Your task to perform on an android device: What's the weather today? Image 0: 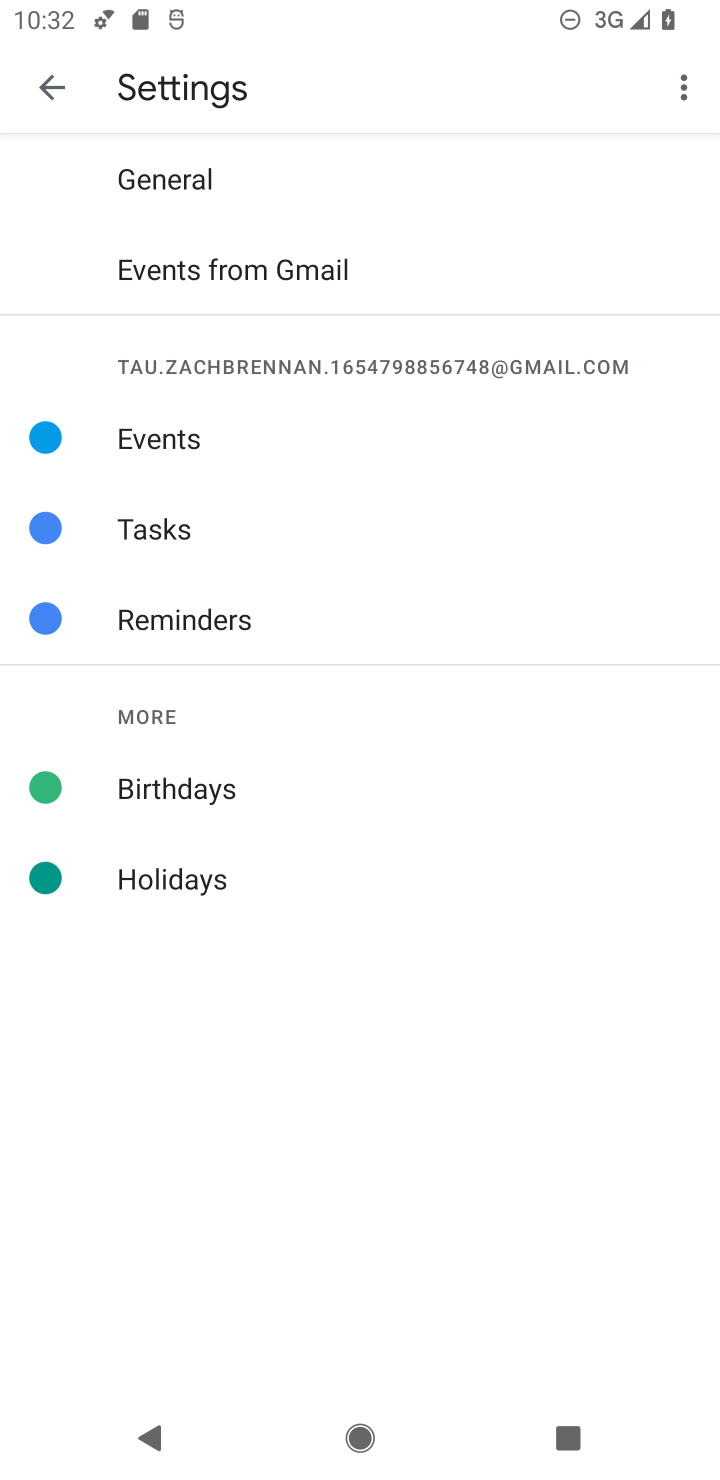
Step 0: press home button
Your task to perform on an android device: What's the weather today? Image 1: 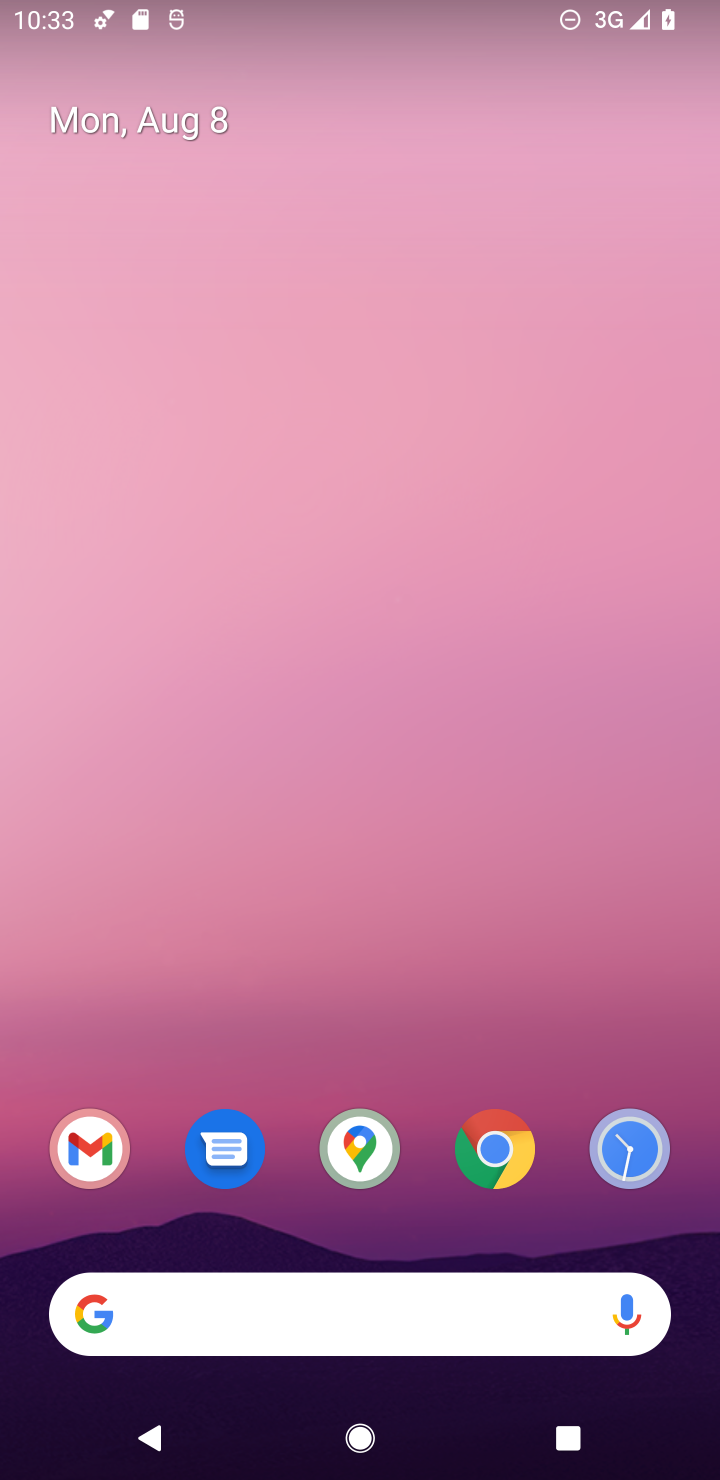
Step 1: drag from (263, 858) to (244, 735)
Your task to perform on an android device: What's the weather today? Image 2: 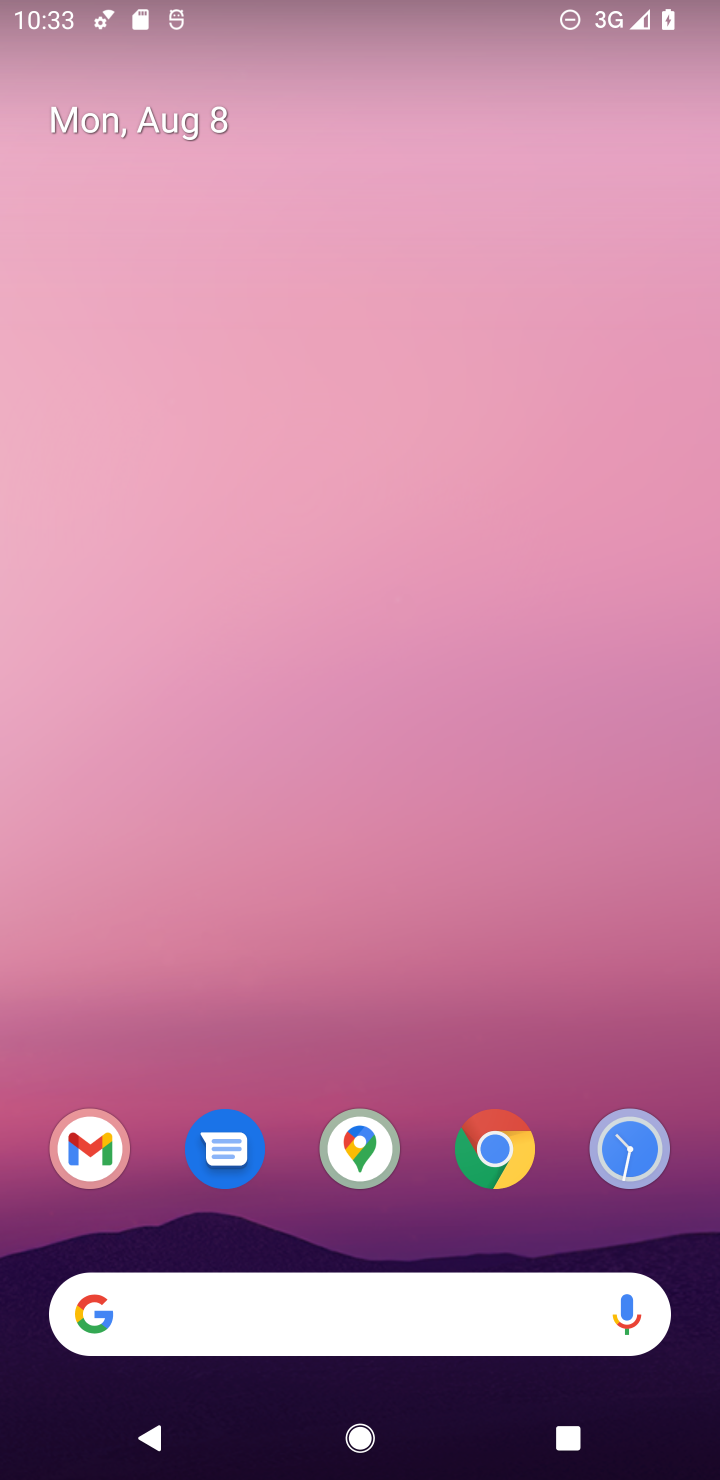
Step 2: drag from (315, 1208) to (175, 492)
Your task to perform on an android device: What's the weather today? Image 3: 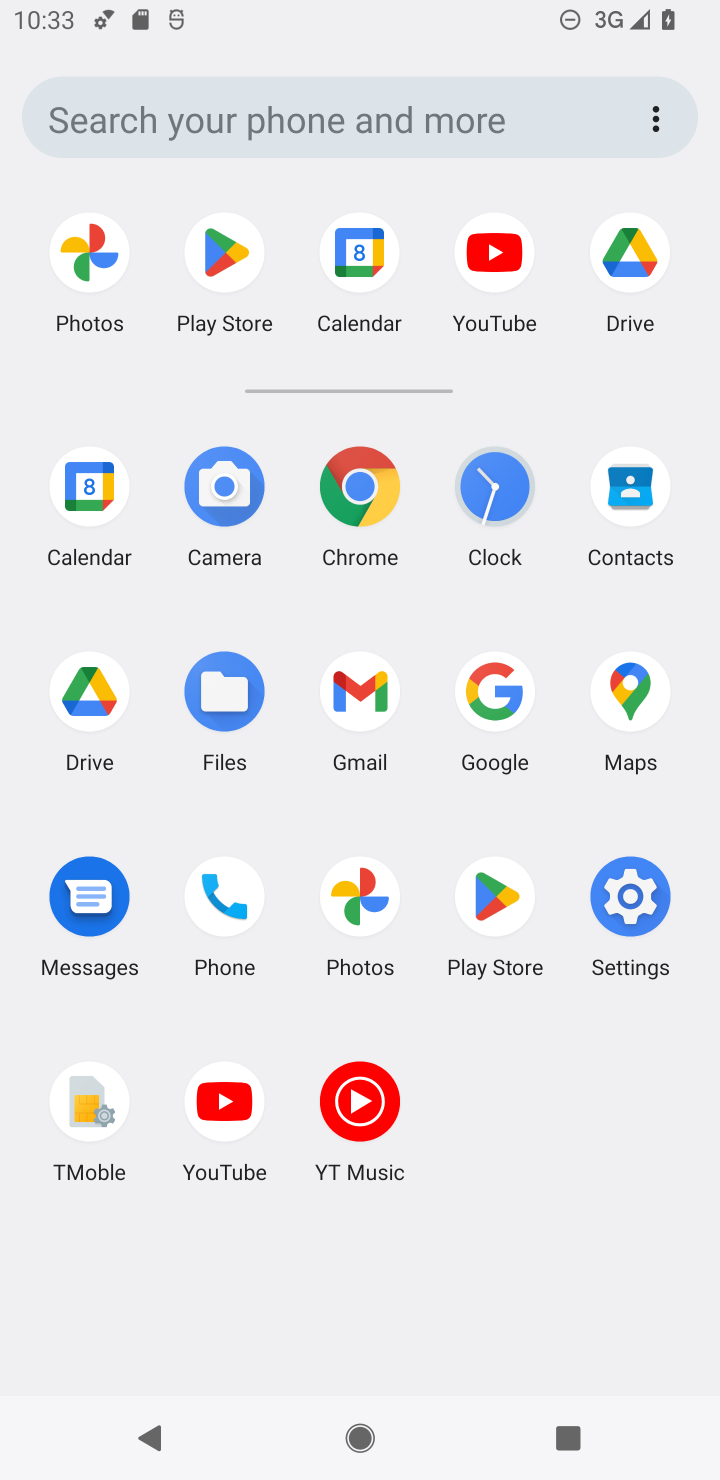
Step 3: click (473, 699)
Your task to perform on an android device: What's the weather today? Image 4: 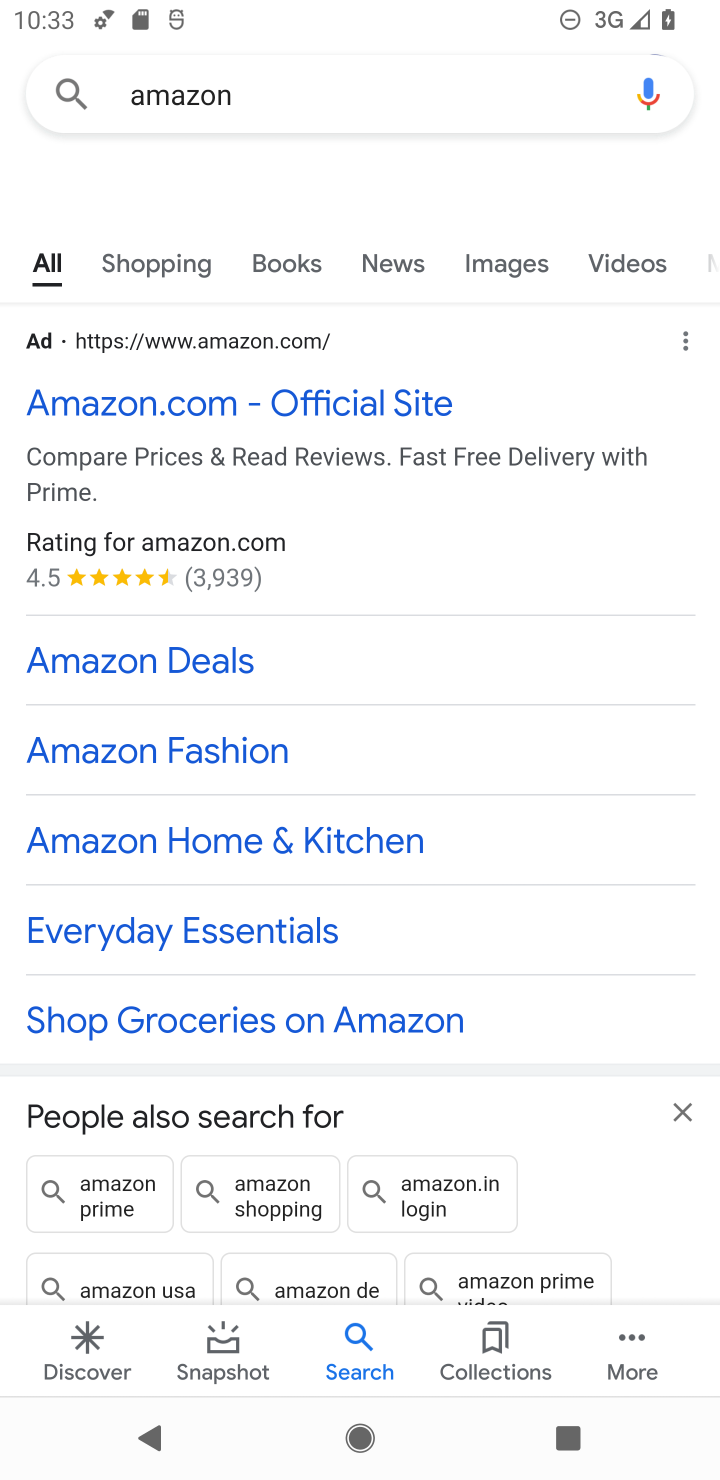
Step 4: click (271, 97)
Your task to perform on an android device: What's the weather today? Image 5: 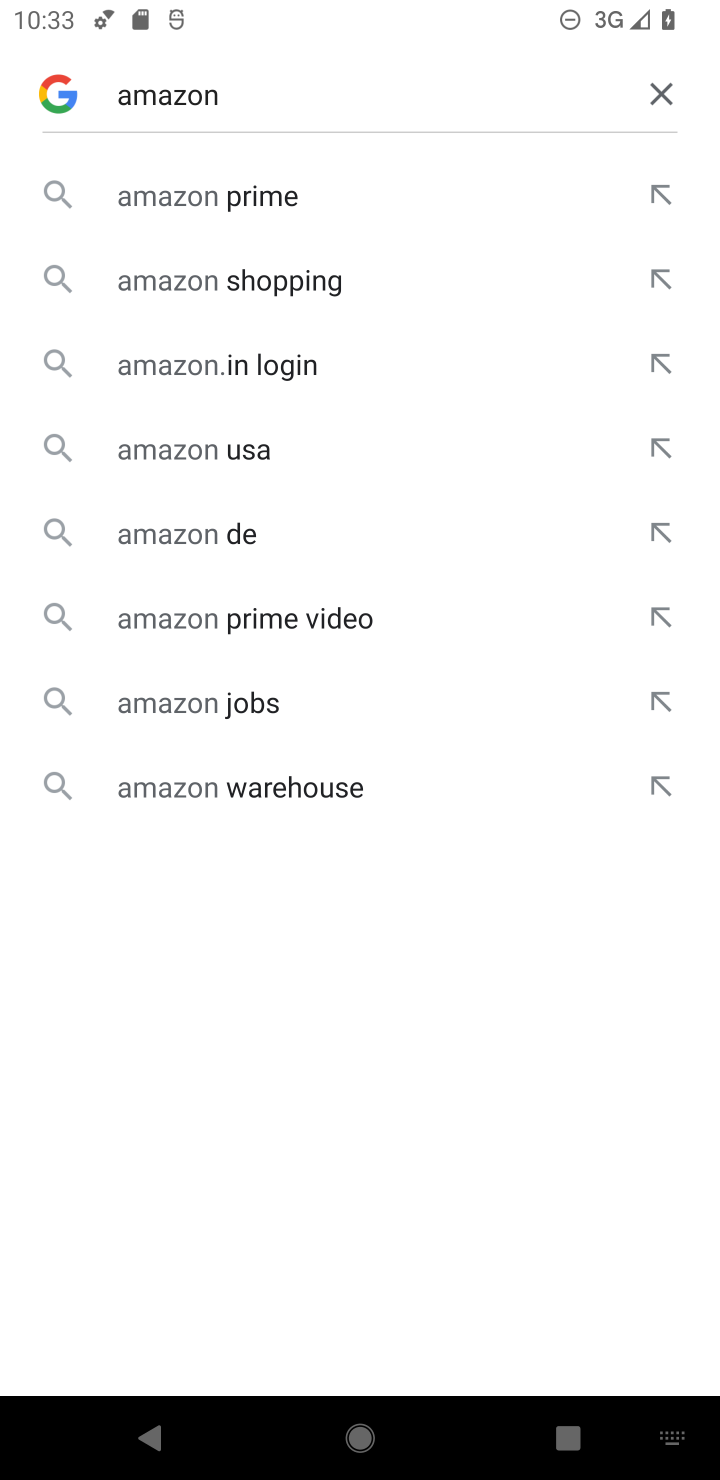
Step 5: click (654, 107)
Your task to perform on an android device: What's the weather today? Image 6: 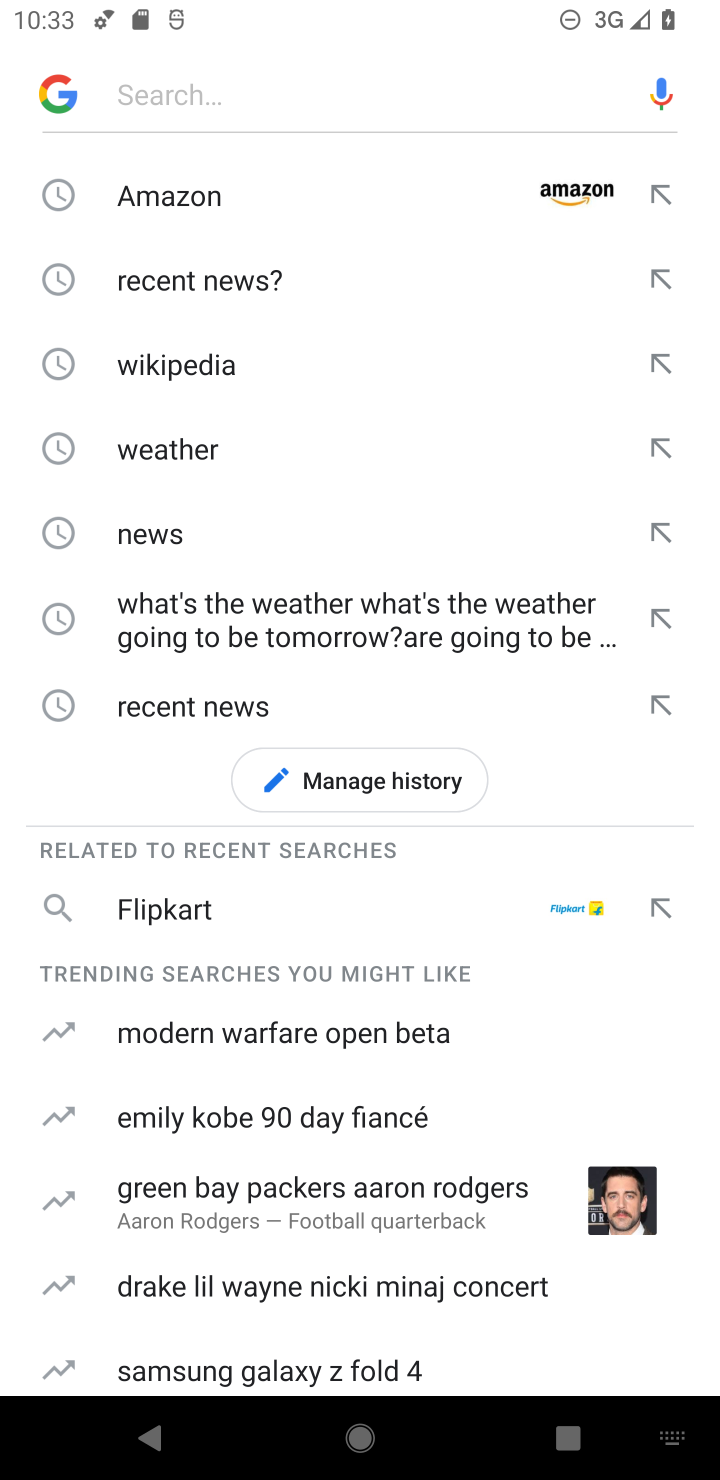
Step 6: click (184, 437)
Your task to perform on an android device: What's the weather today? Image 7: 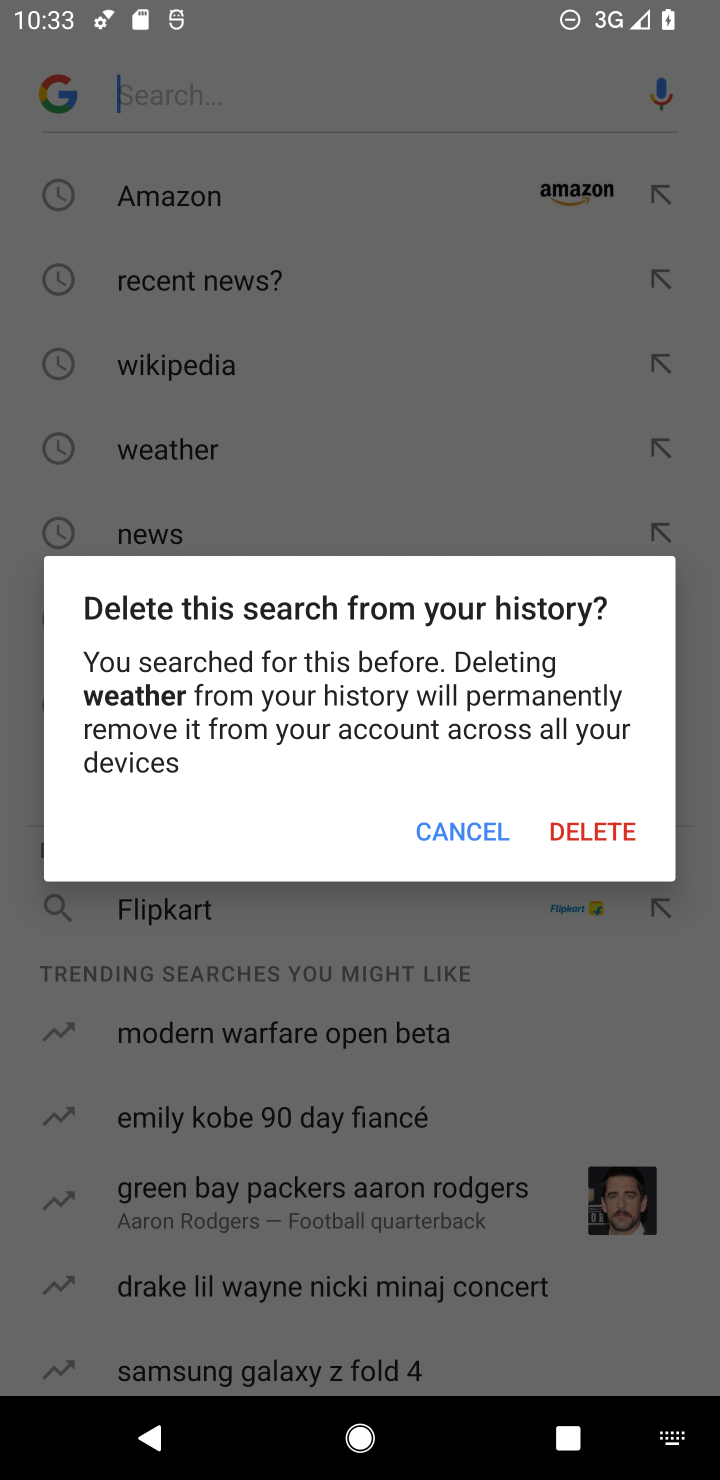
Step 7: click (442, 839)
Your task to perform on an android device: What's the weather today? Image 8: 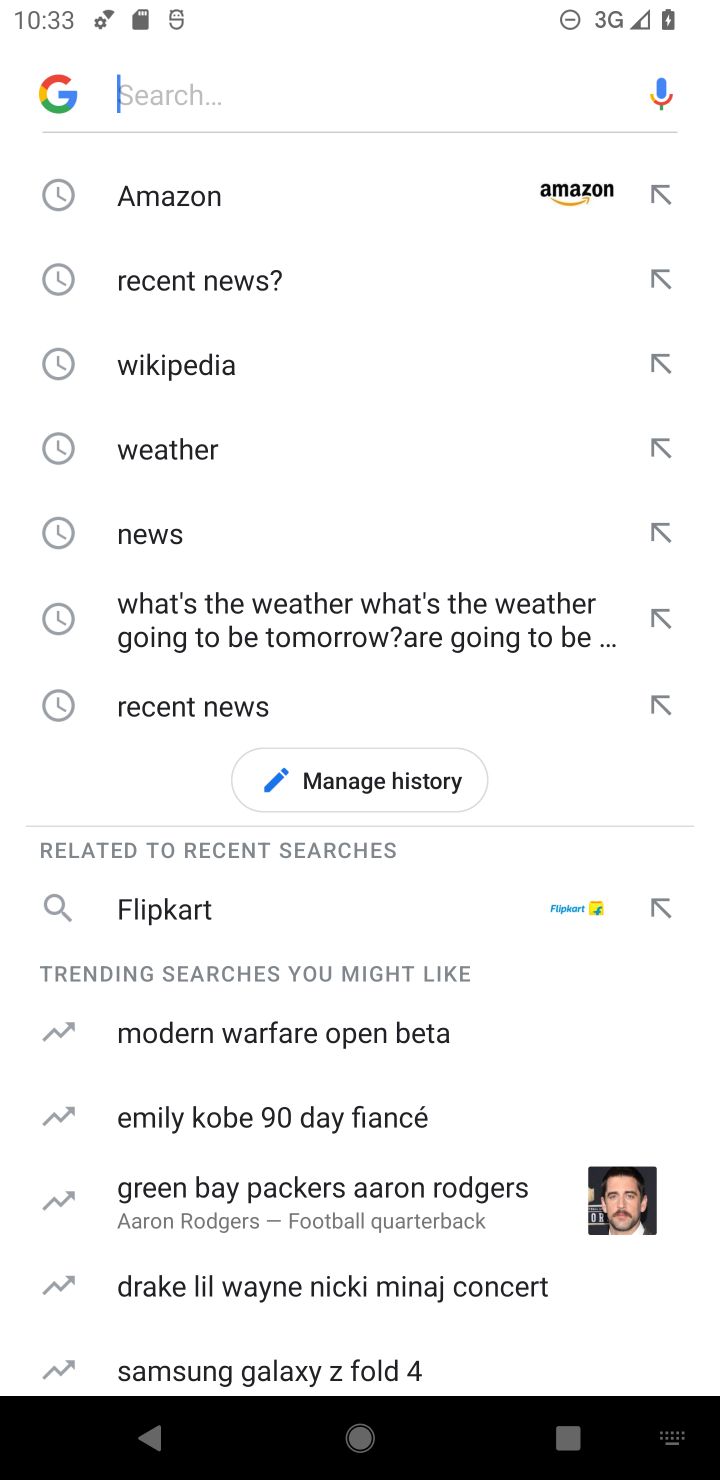
Step 8: click (144, 458)
Your task to perform on an android device: What's the weather today? Image 9: 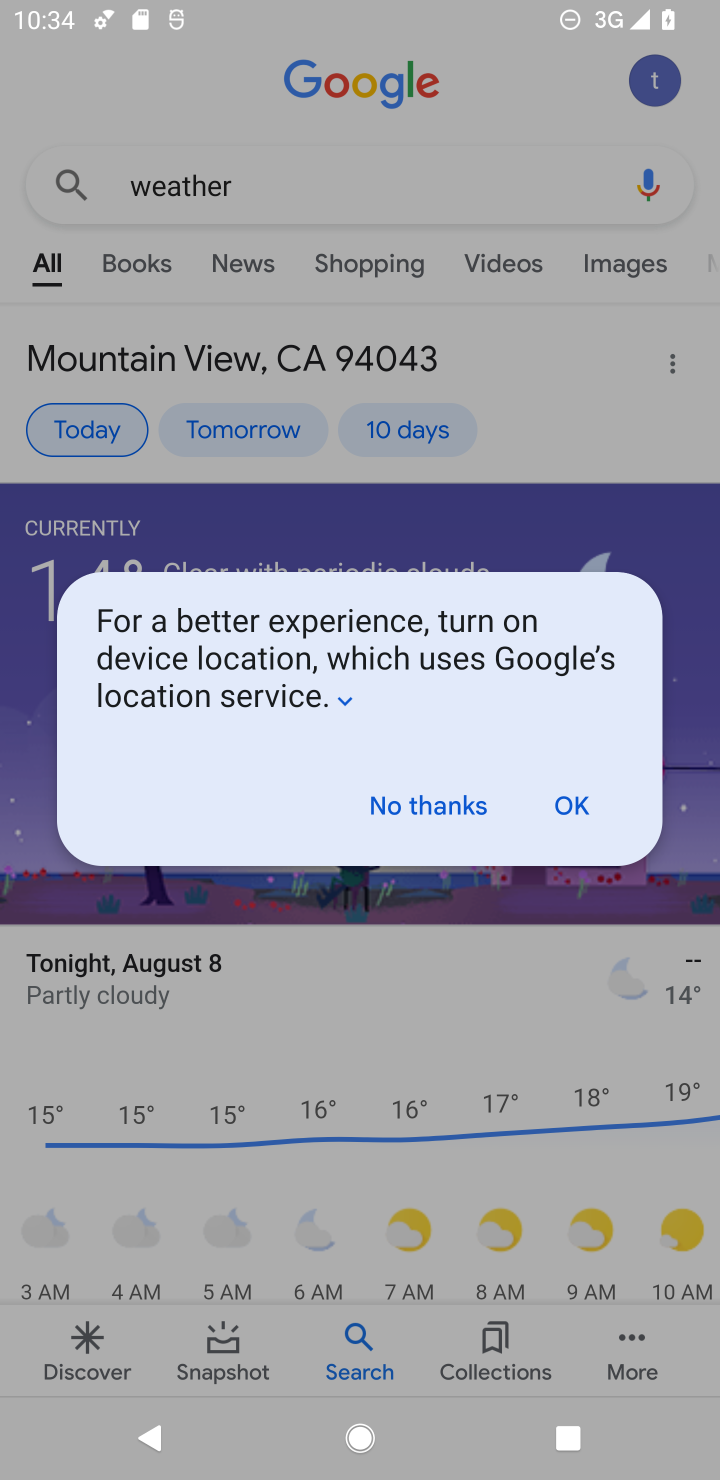
Step 9: task complete